Your task to perform on an android device: Show me recent news Image 0: 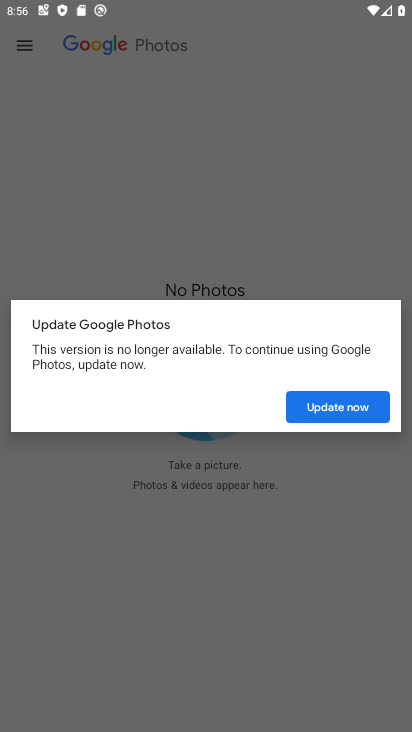
Step 0: press home button
Your task to perform on an android device: Show me recent news Image 1: 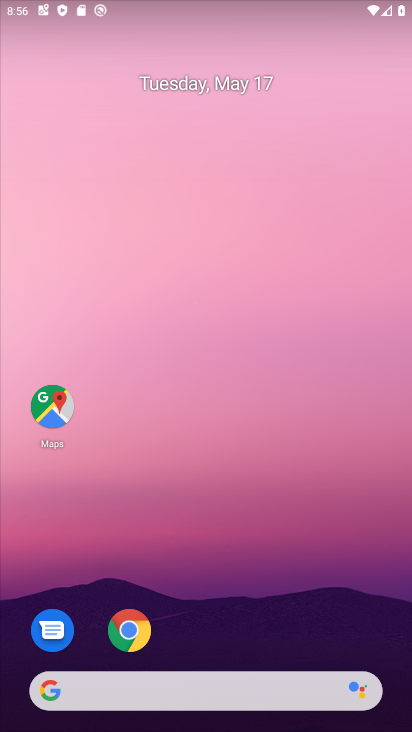
Step 1: click (400, 375)
Your task to perform on an android device: Show me recent news Image 2: 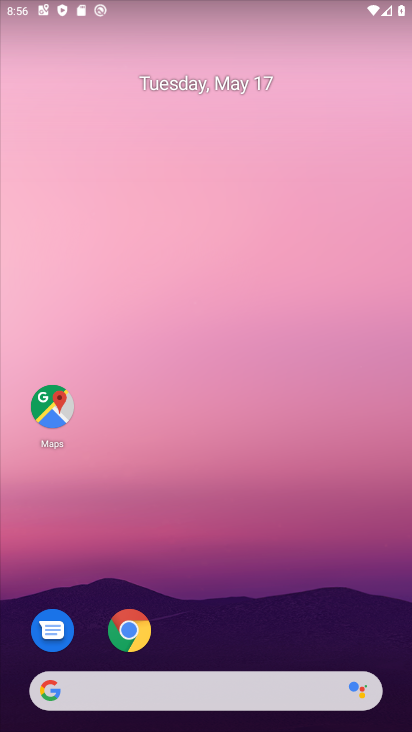
Step 2: click (132, 637)
Your task to perform on an android device: Show me recent news Image 3: 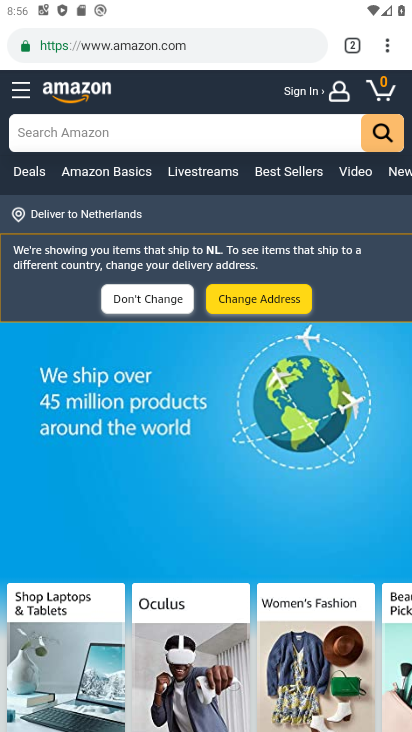
Step 3: click (352, 45)
Your task to perform on an android device: Show me recent news Image 4: 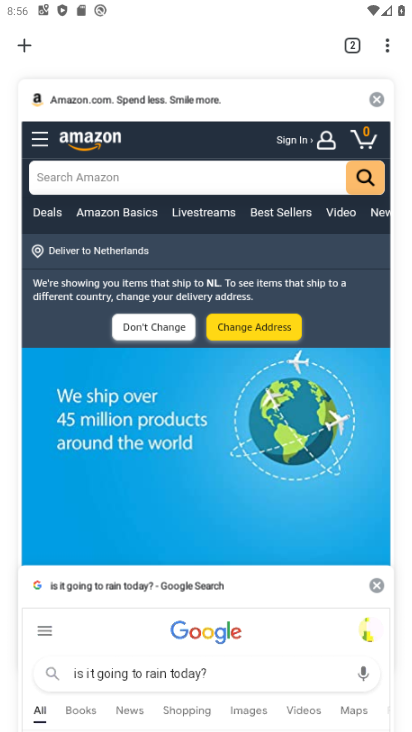
Step 4: click (23, 47)
Your task to perform on an android device: Show me recent news Image 5: 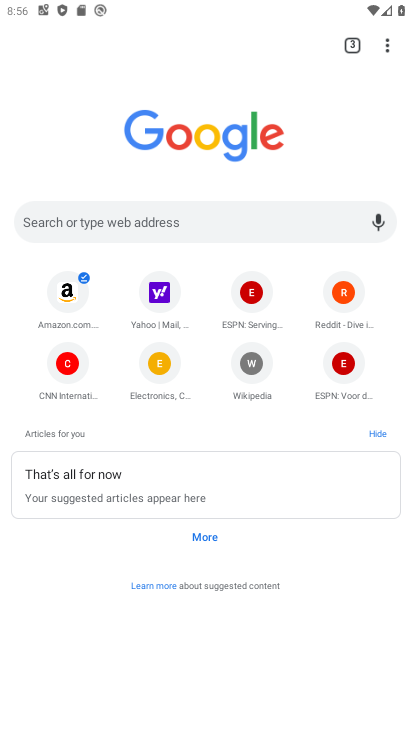
Step 5: click (99, 215)
Your task to perform on an android device: Show me recent news Image 6: 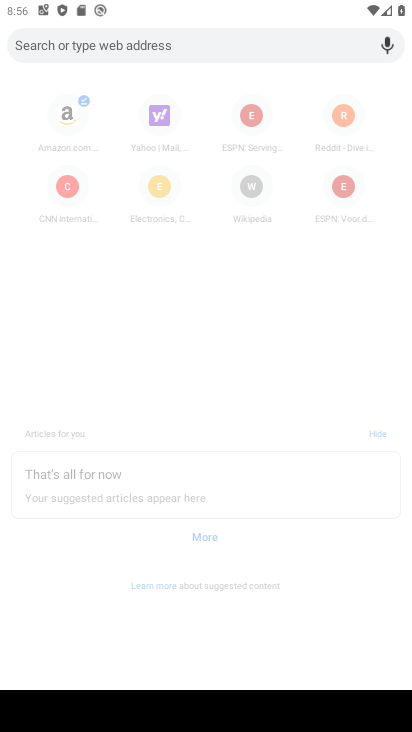
Step 6: type "recent news"
Your task to perform on an android device: Show me recent news Image 7: 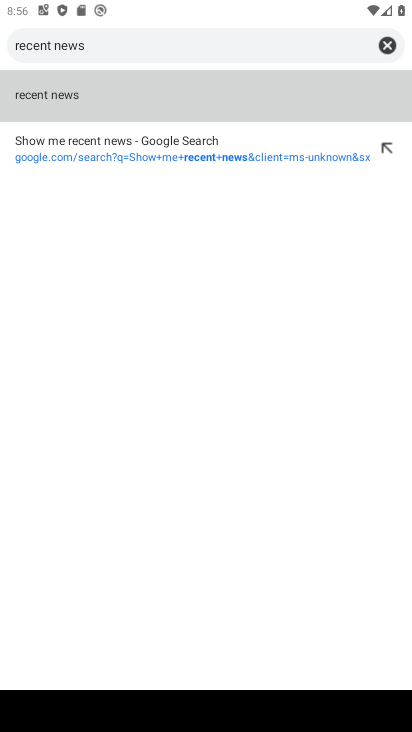
Step 7: click (66, 134)
Your task to perform on an android device: Show me recent news Image 8: 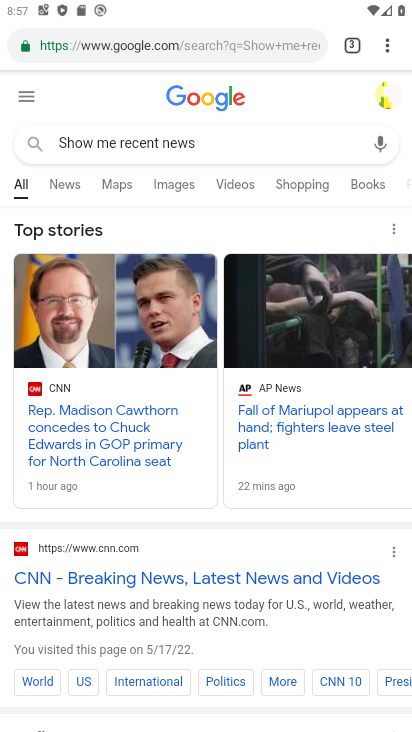
Step 8: task complete